Your task to perform on an android device: Do I have any events this weekend? Image 0: 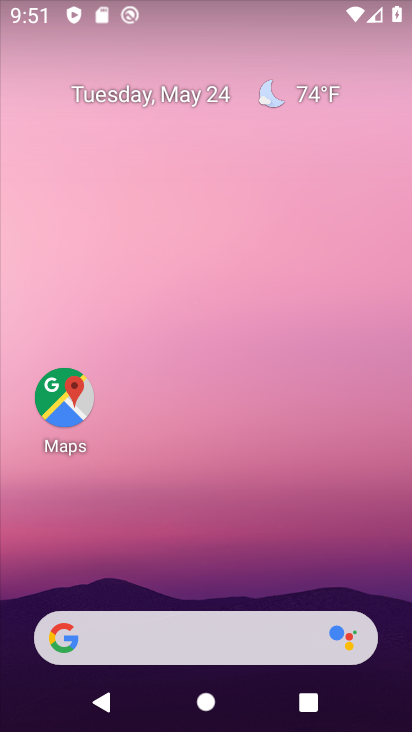
Step 0: drag from (185, 592) to (106, 20)
Your task to perform on an android device: Do I have any events this weekend? Image 1: 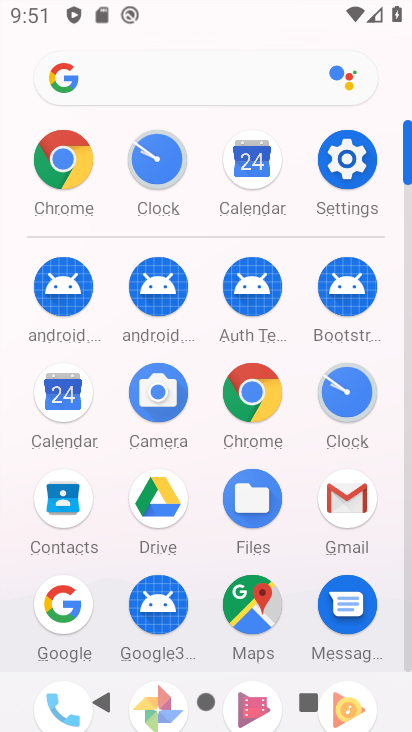
Step 1: click (62, 417)
Your task to perform on an android device: Do I have any events this weekend? Image 2: 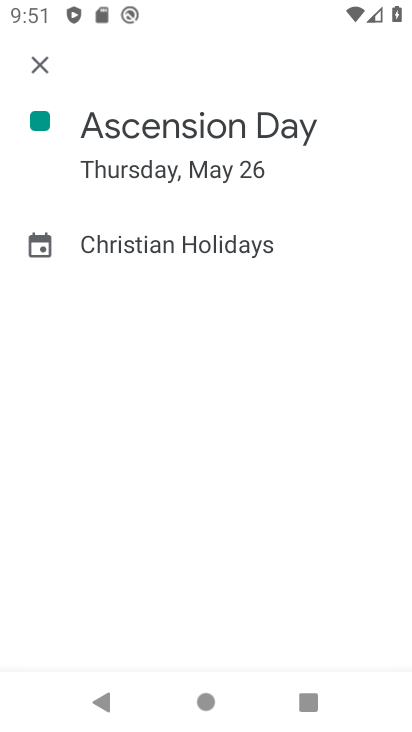
Step 2: click (36, 58)
Your task to perform on an android device: Do I have any events this weekend? Image 3: 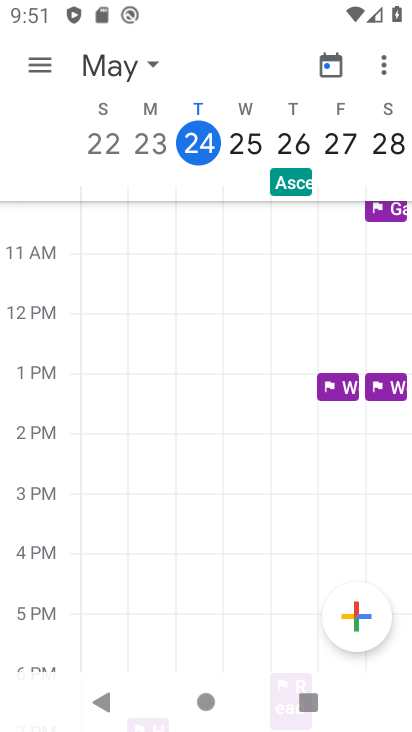
Step 3: click (285, 158)
Your task to perform on an android device: Do I have any events this weekend? Image 4: 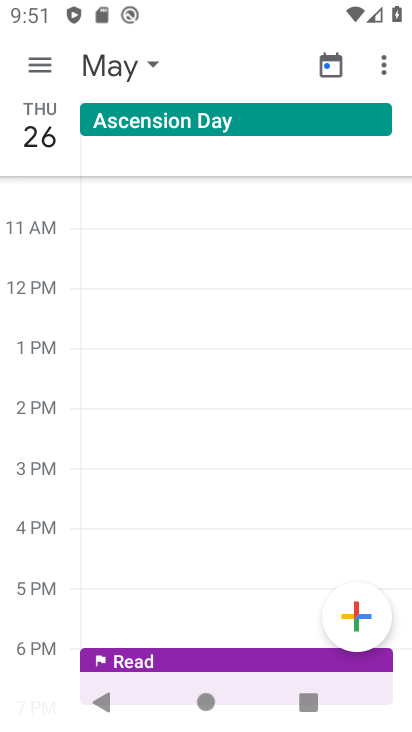
Step 4: task complete